Your task to perform on an android device: Check the weather Image 0: 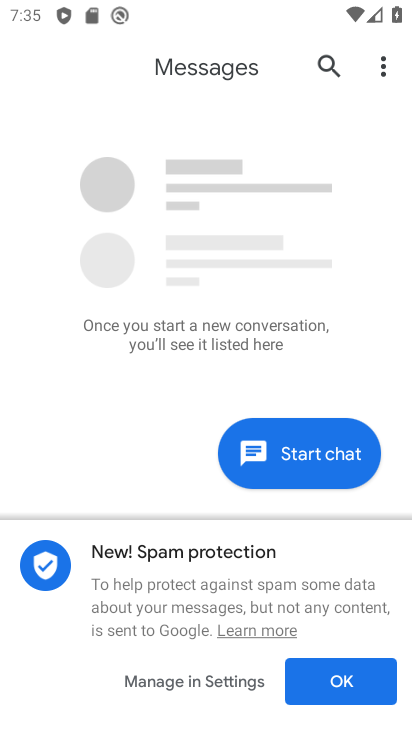
Step 0: press home button
Your task to perform on an android device: Check the weather Image 1: 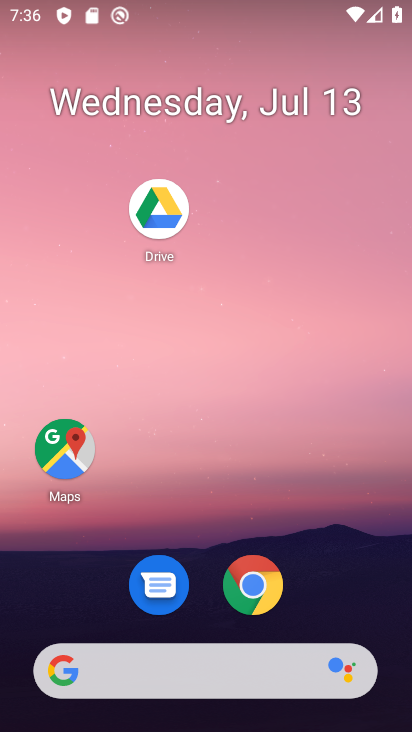
Step 1: click (173, 674)
Your task to perform on an android device: Check the weather Image 2: 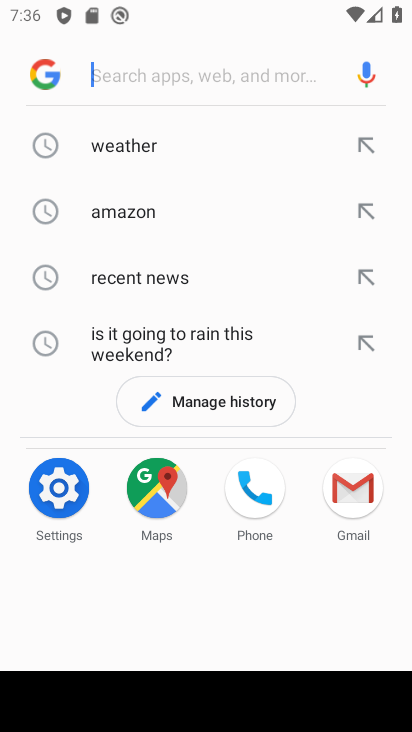
Step 2: click (133, 145)
Your task to perform on an android device: Check the weather Image 3: 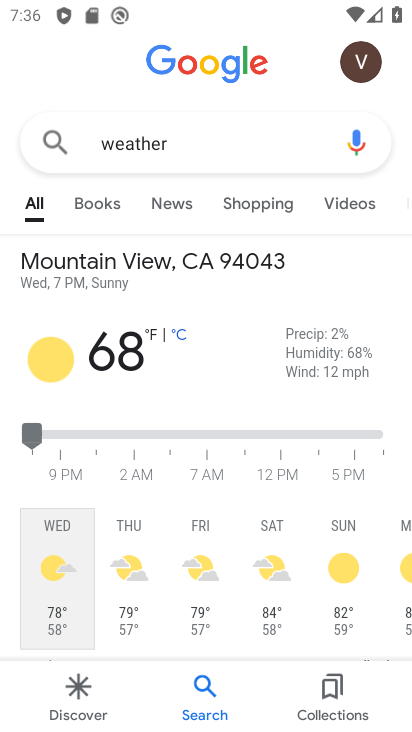
Step 3: task complete